Your task to perform on an android device: turn off priority inbox in the gmail app Image 0: 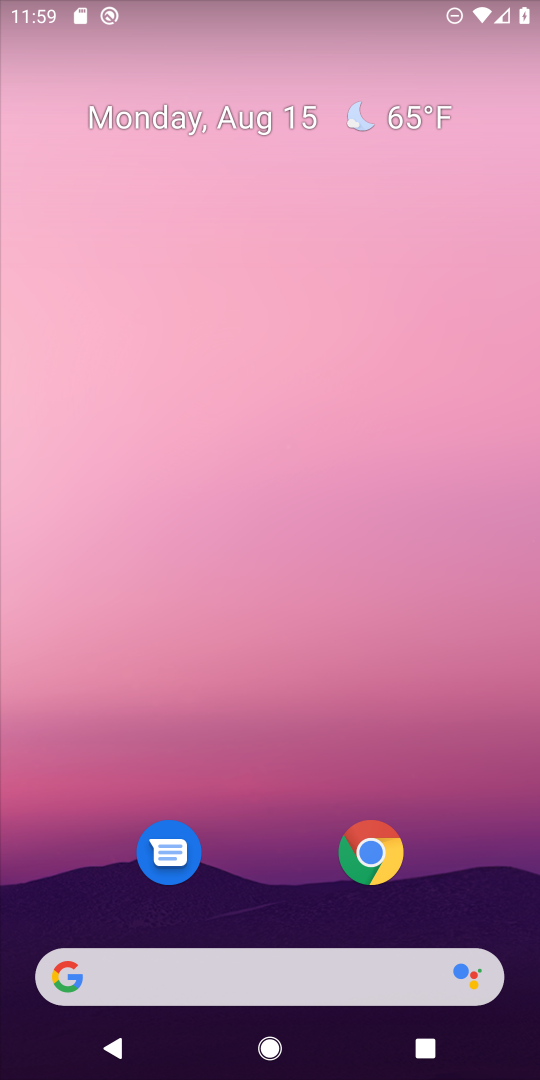
Step 0: drag from (236, 894) to (396, 6)
Your task to perform on an android device: turn off priority inbox in the gmail app Image 1: 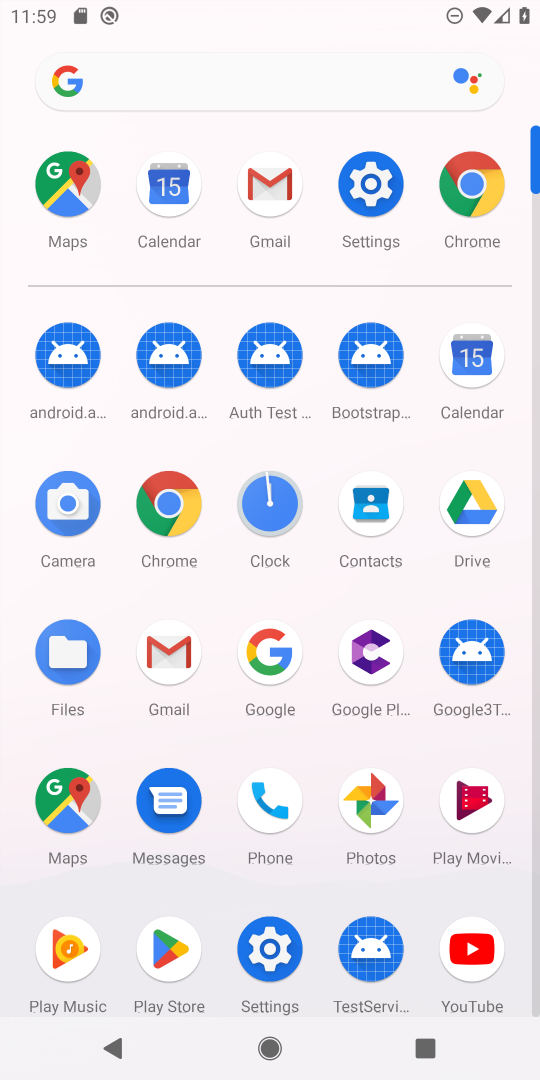
Step 1: click (279, 188)
Your task to perform on an android device: turn off priority inbox in the gmail app Image 2: 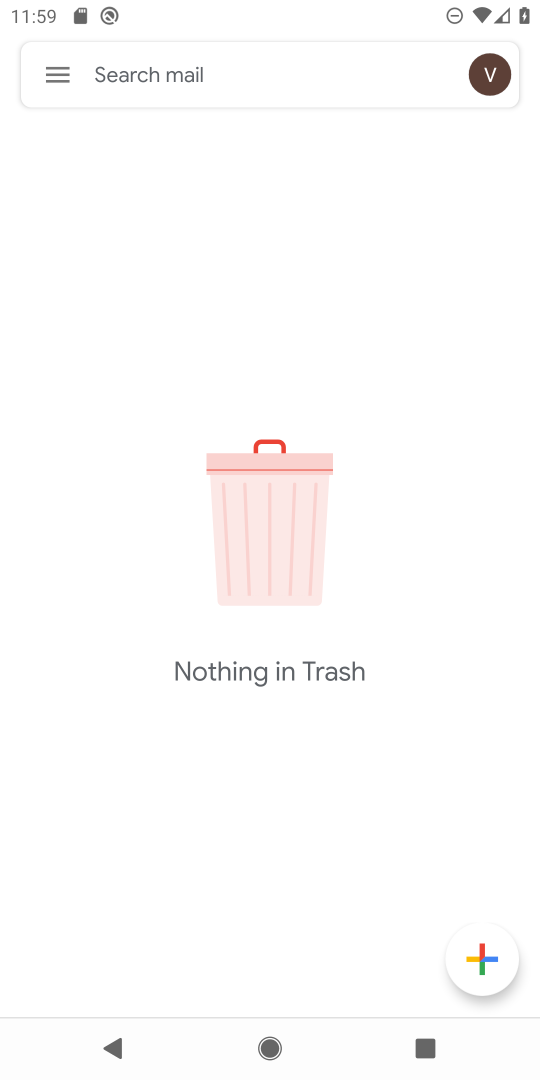
Step 2: click (48, 70)
Your task to perform on an android device: turn off priority inbox in the gmail app Image 3: 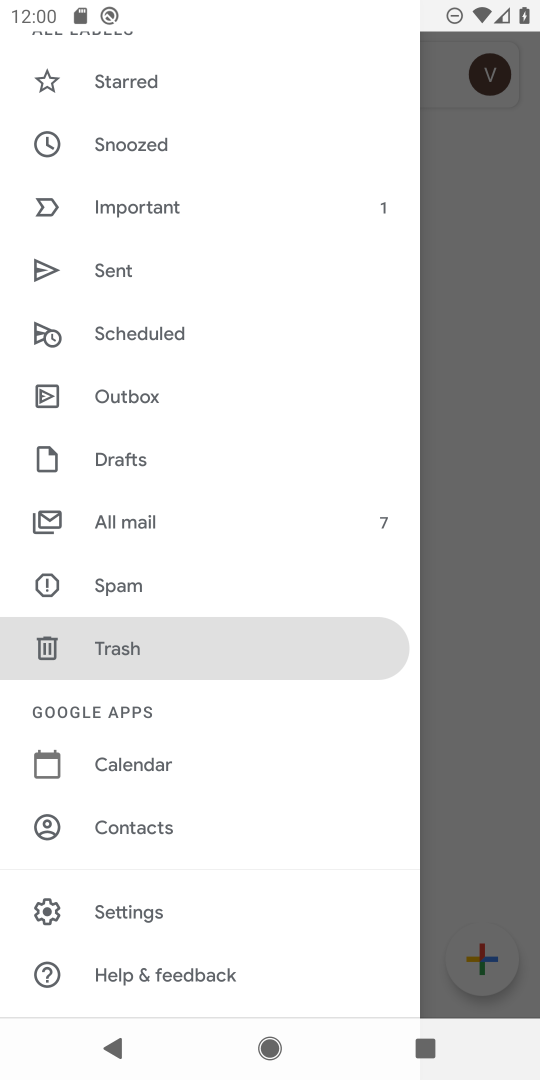
Step 3: click (148, 918)
Your task to perform on an android device: turn off priority inbox in the gmail app Image 4: 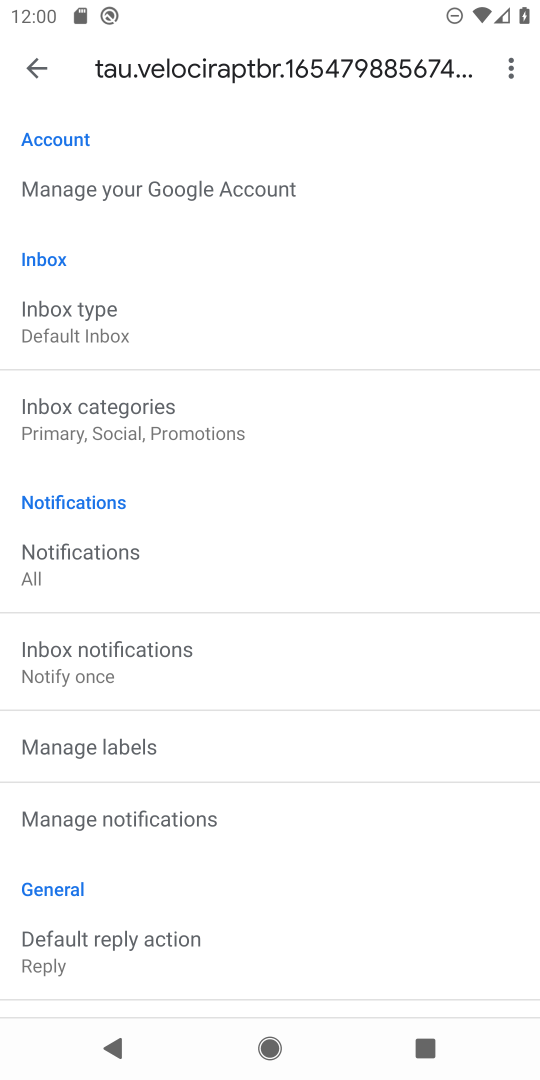
Step 4: click (126, 330)
Your task to perform on an android device: turn off priority inbox in the gmail app Image 5: 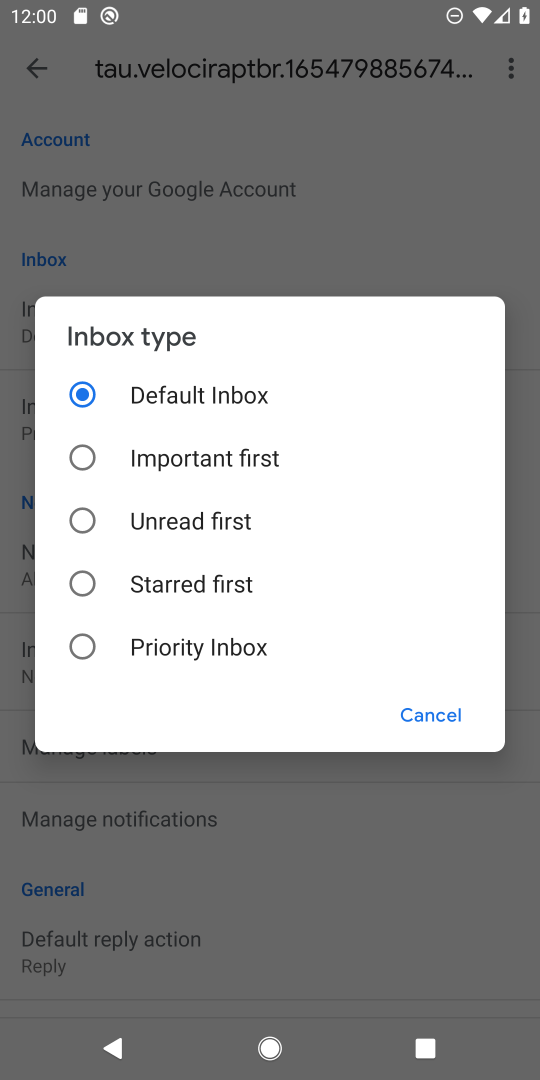
Step 5: task complete